Your task to perform on an android device: Go to notification settings Image 0: 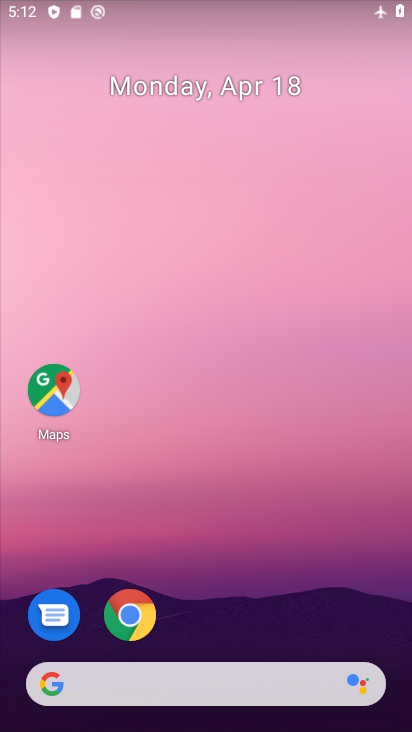
Step 0: drag from (279, 557) to (275, 159)
Your task to perform on an android device: Go to notification settings Image 1: 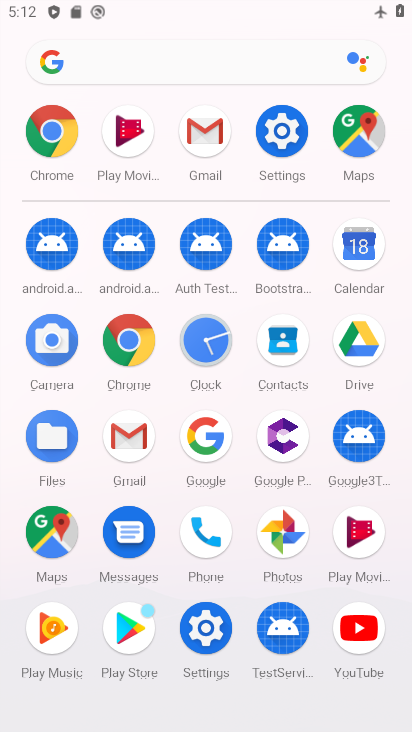
Step 1: click (271, 126)
Your task to perform on an android device: Go to notification settings Image 2: 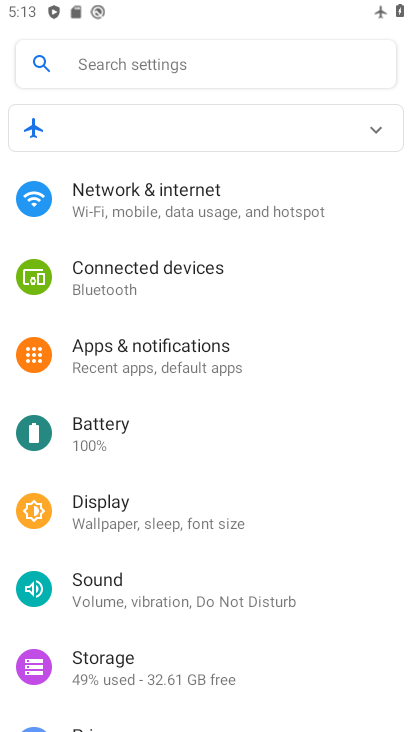
Step 2: click (303, 346)
Your task to perform on an android device: Go to notification settings Image 3: 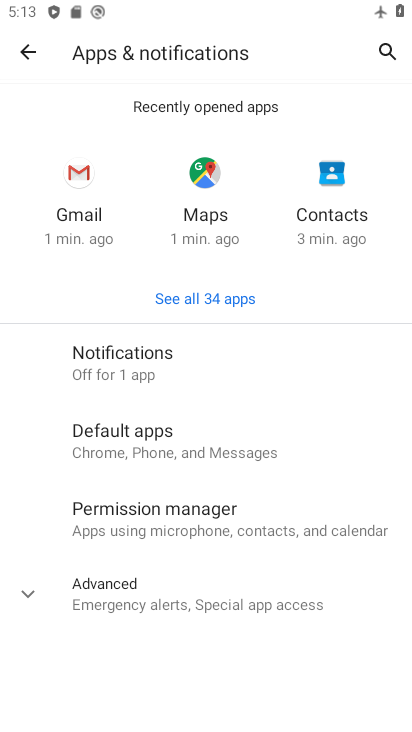
Step 3: task complete